Your task to perform on an android device: delete location history Image 0: 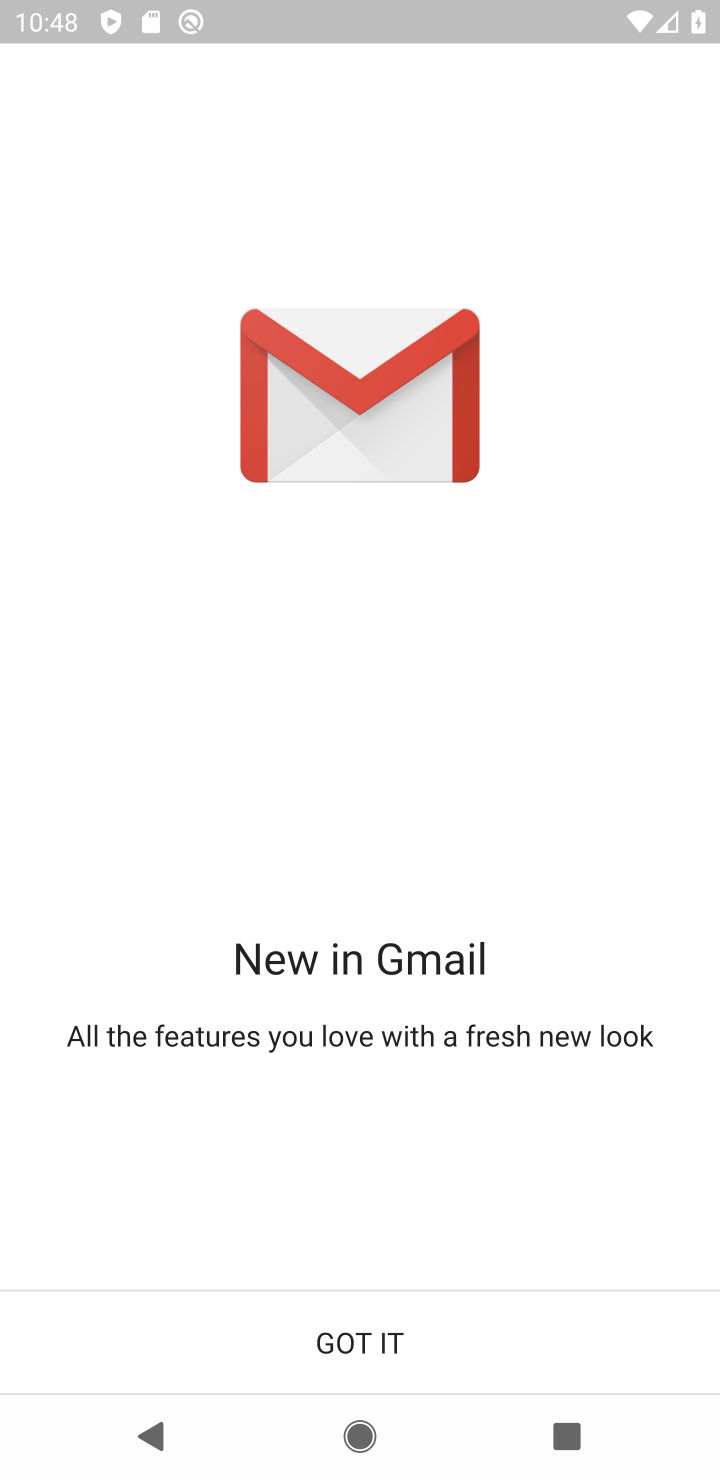
Step 0: click (345, 1355)
Your task to perform on an android device: delete location history Image 1: 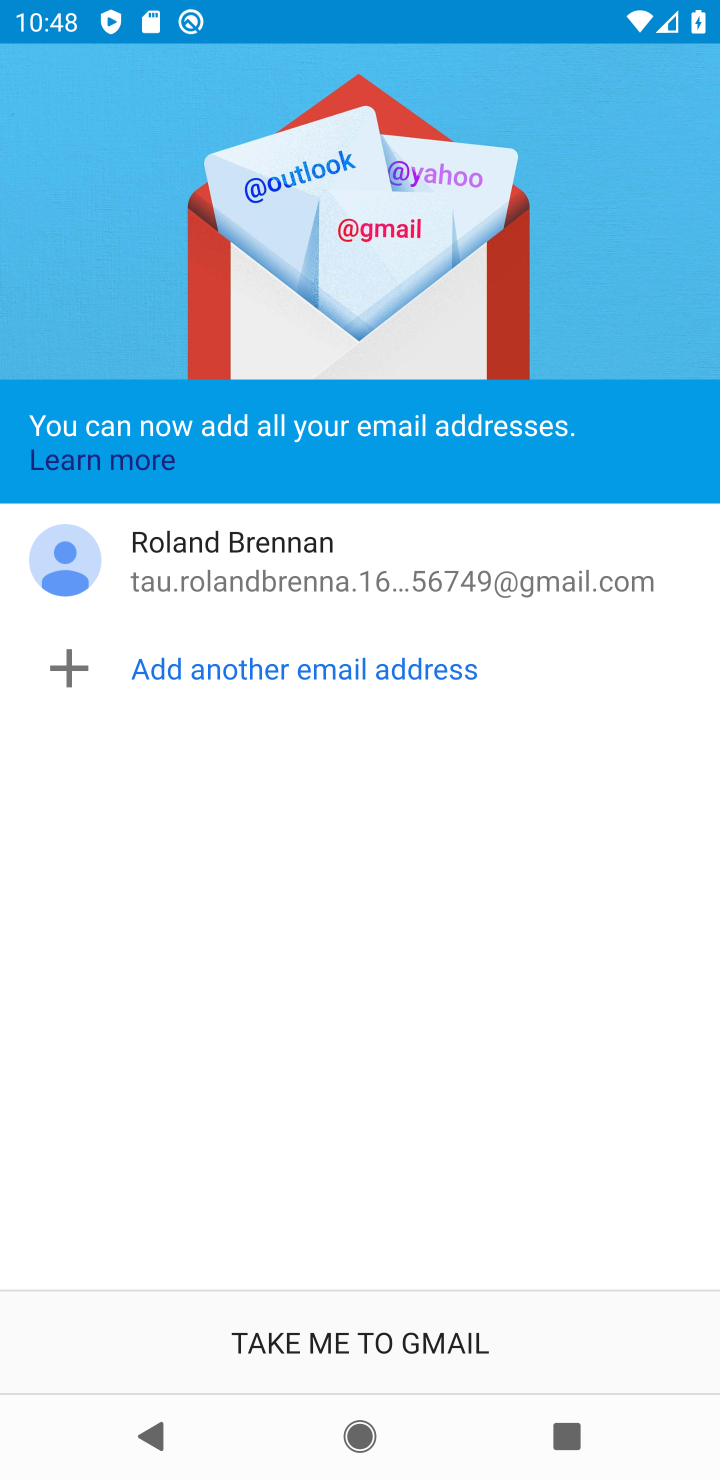
Step 1: press home button
Your task to perform on an android device: delete location history Image 2: 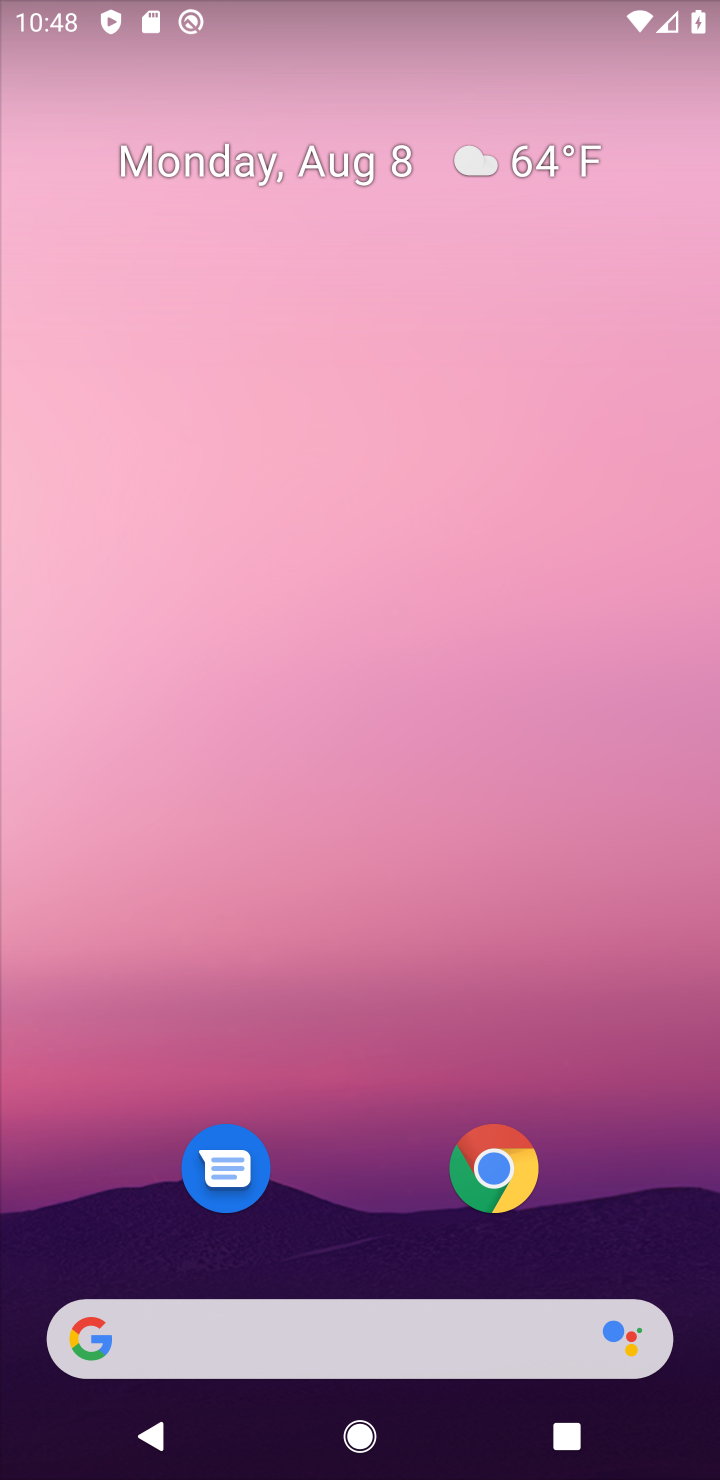
Step 2: drag from (28, 1219) to (511, 33)
Your task to perform on an android device: delete location history Image 3: 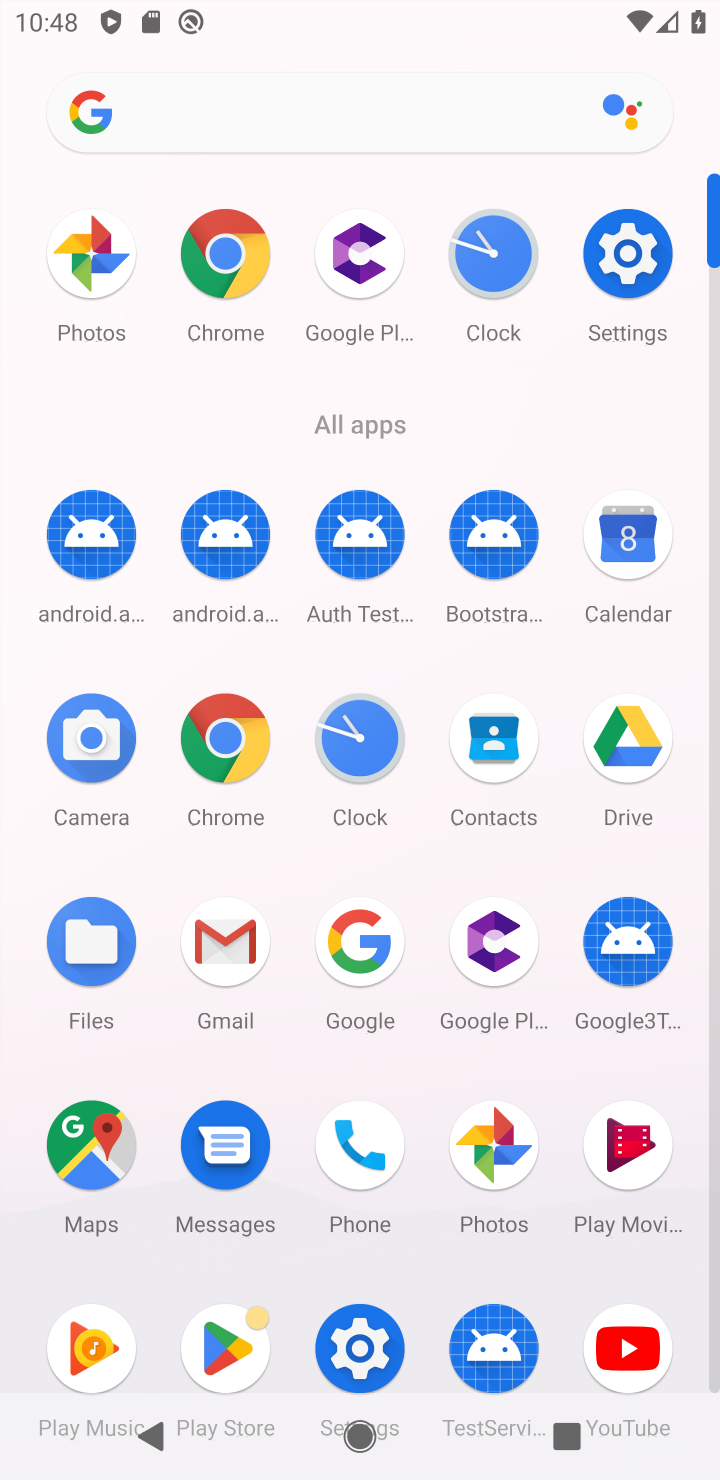
Step 3: click (666, 259)
Your task to perform on an android device: delete location history Image 4: 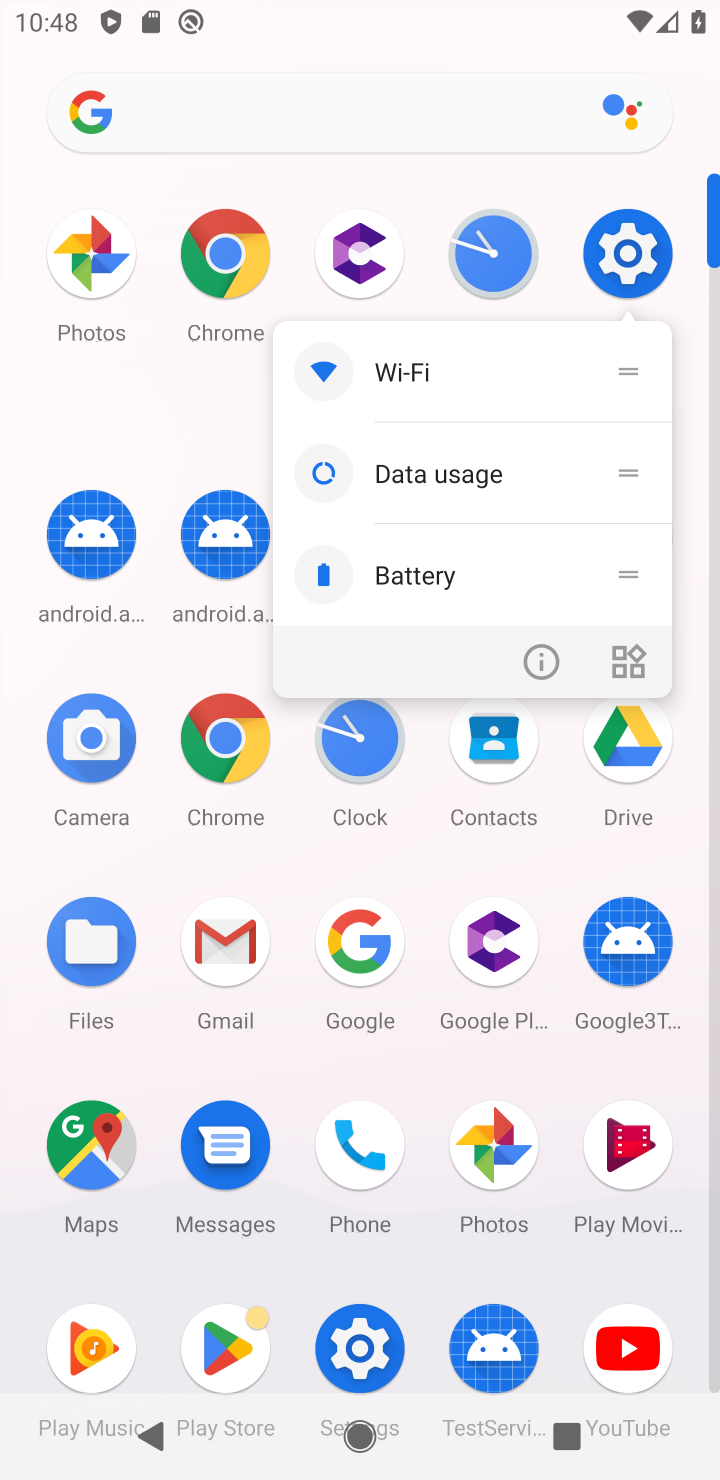
Step 4: click (648, 243)
Your task to perform on an android device: delete location history Image 5: 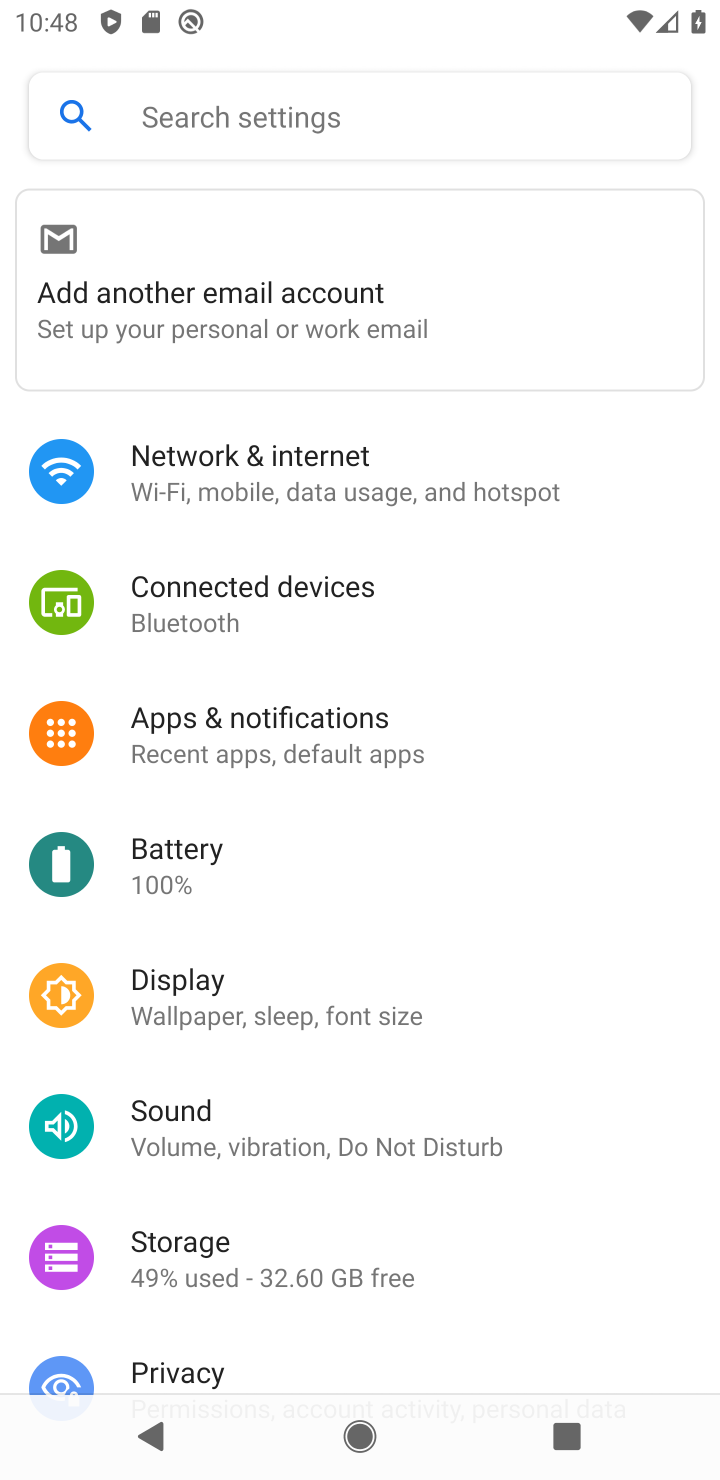
Step 5: drag from (113, 897) to (281, 530)
Your task to perform on an android device: delete location history Image 6: 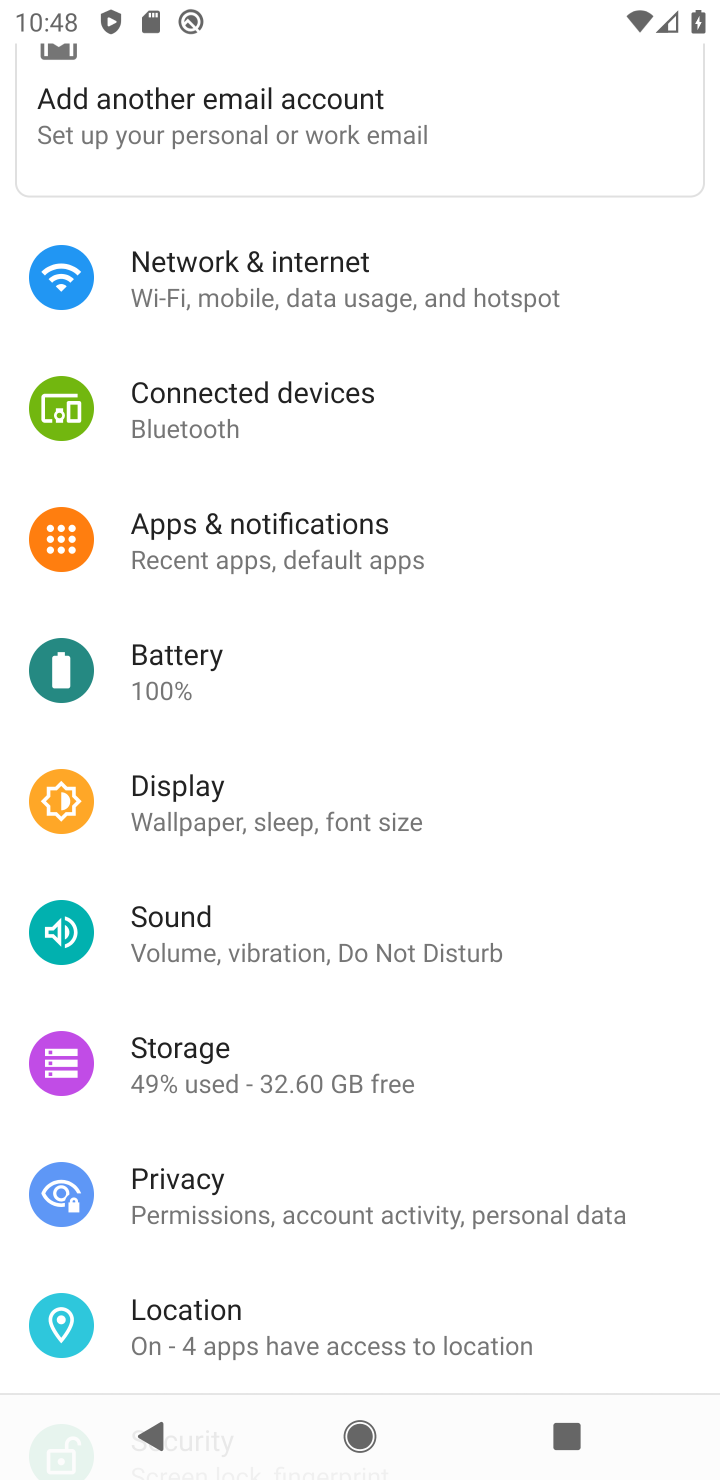
Step 6: click (219, 1311)
Your task to perform on an android device: delete location history Image 7: 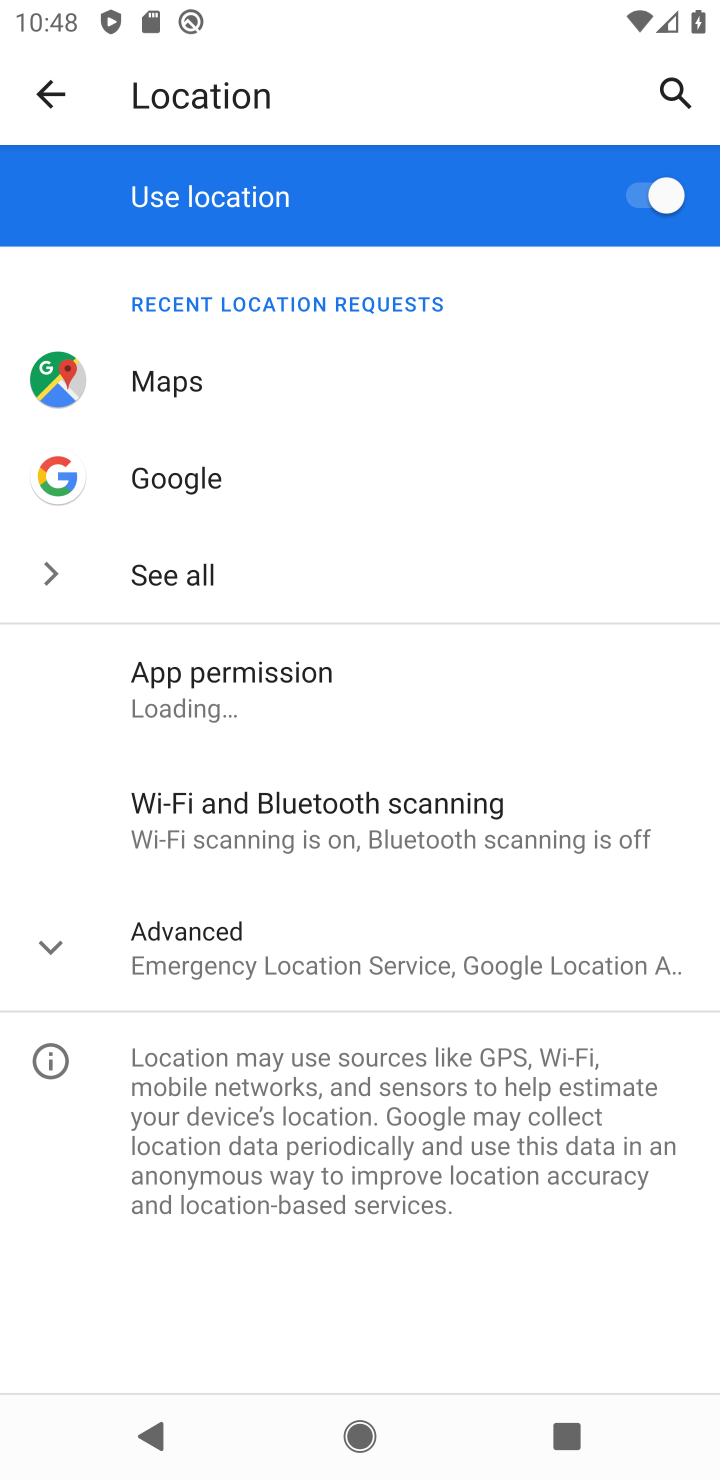
Step 7: click (309, 939)
Your task to perform on an android device: delete location history Image 8: 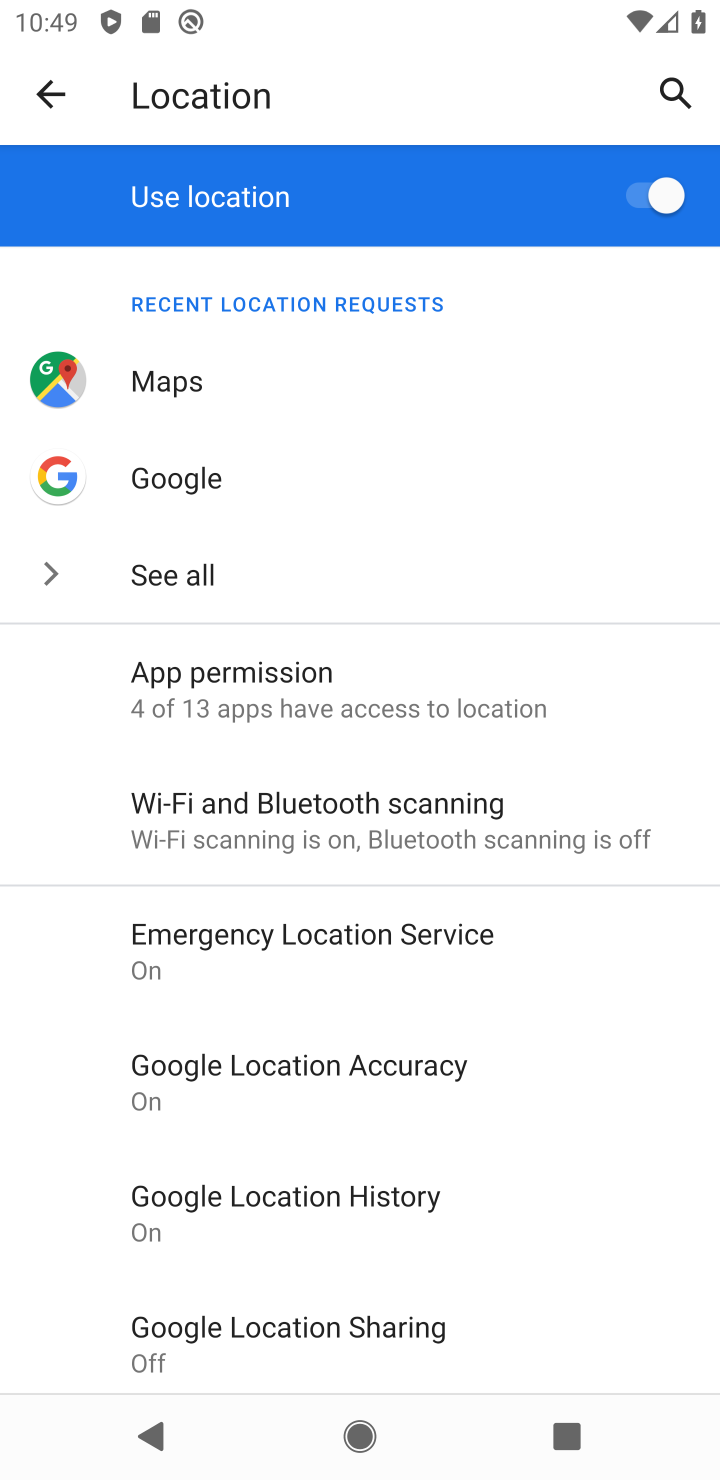
Step 8: click (199, 1219)
Your task to perform on an android device: delete location history Image 9: 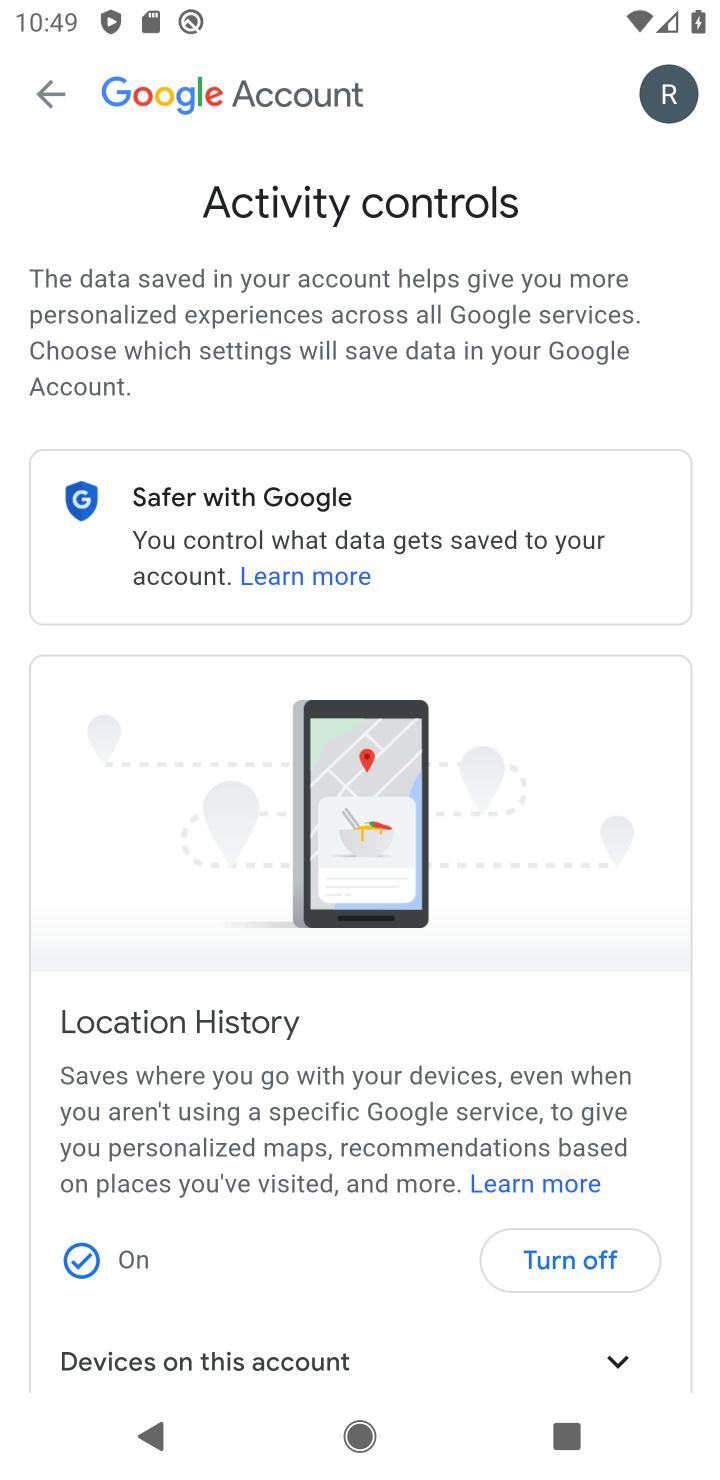
Step 9: drag from (42, 945) to (454, 130)
Your task to perform on an android device: delete location history Image 10: 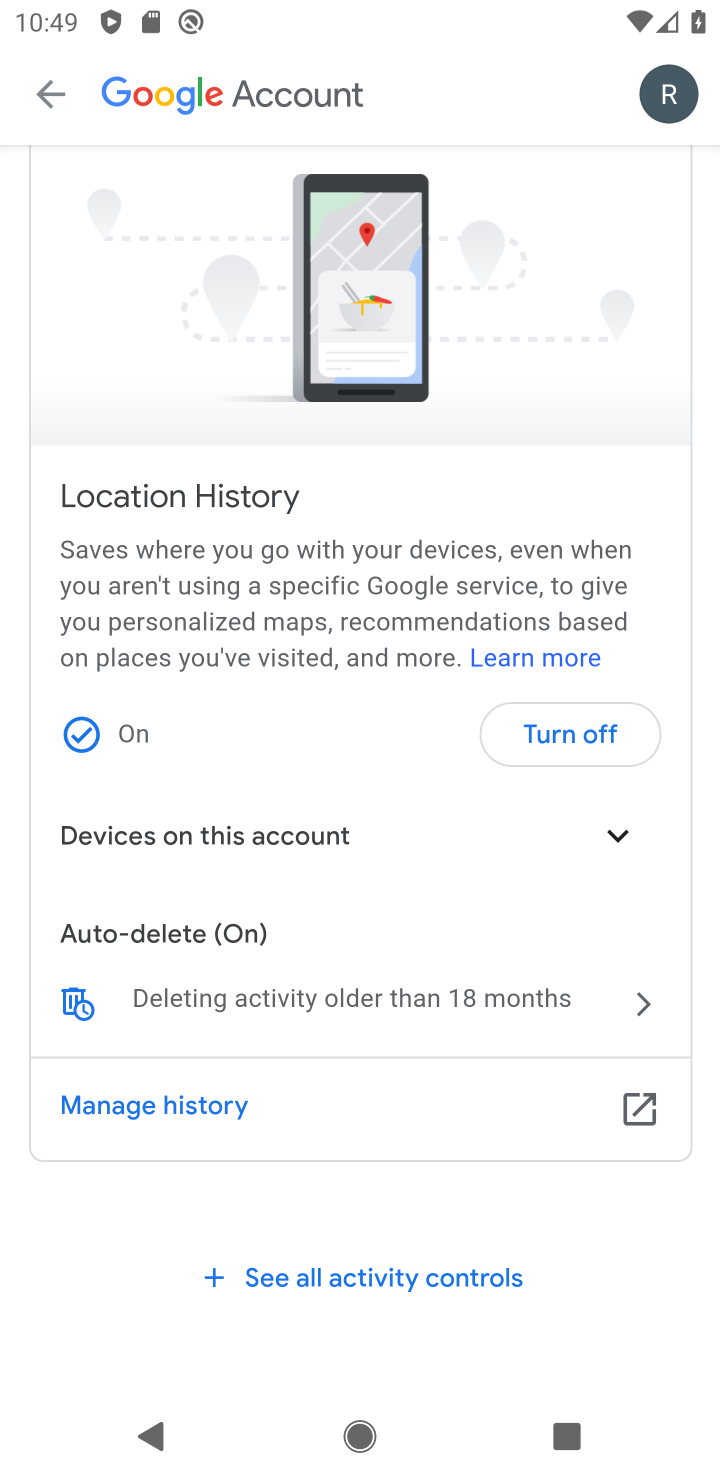
Step 10: click (259, 995)
Your task to perform on an android device: delete location history Image 11: 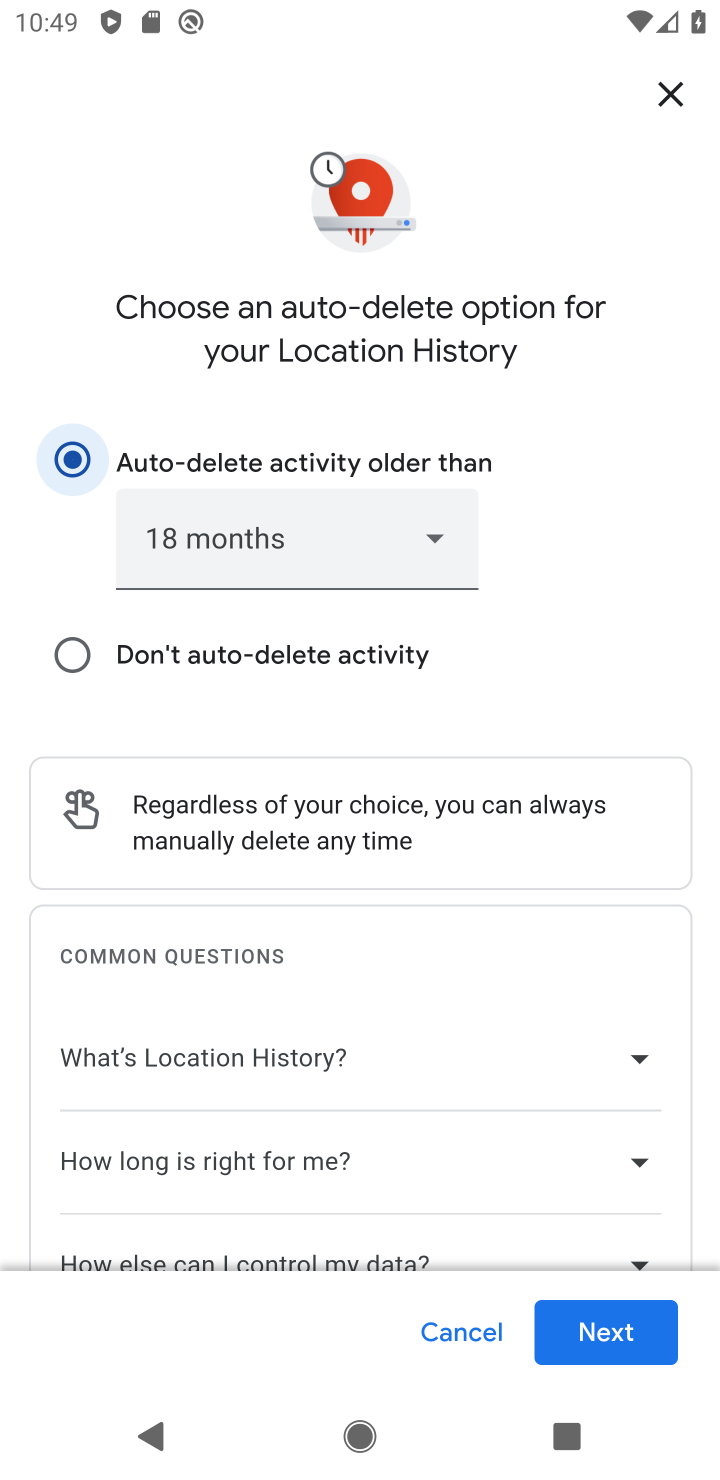
Step 11: click (647, 1317)
Your task to perform on an android device: delete location history Image 12: 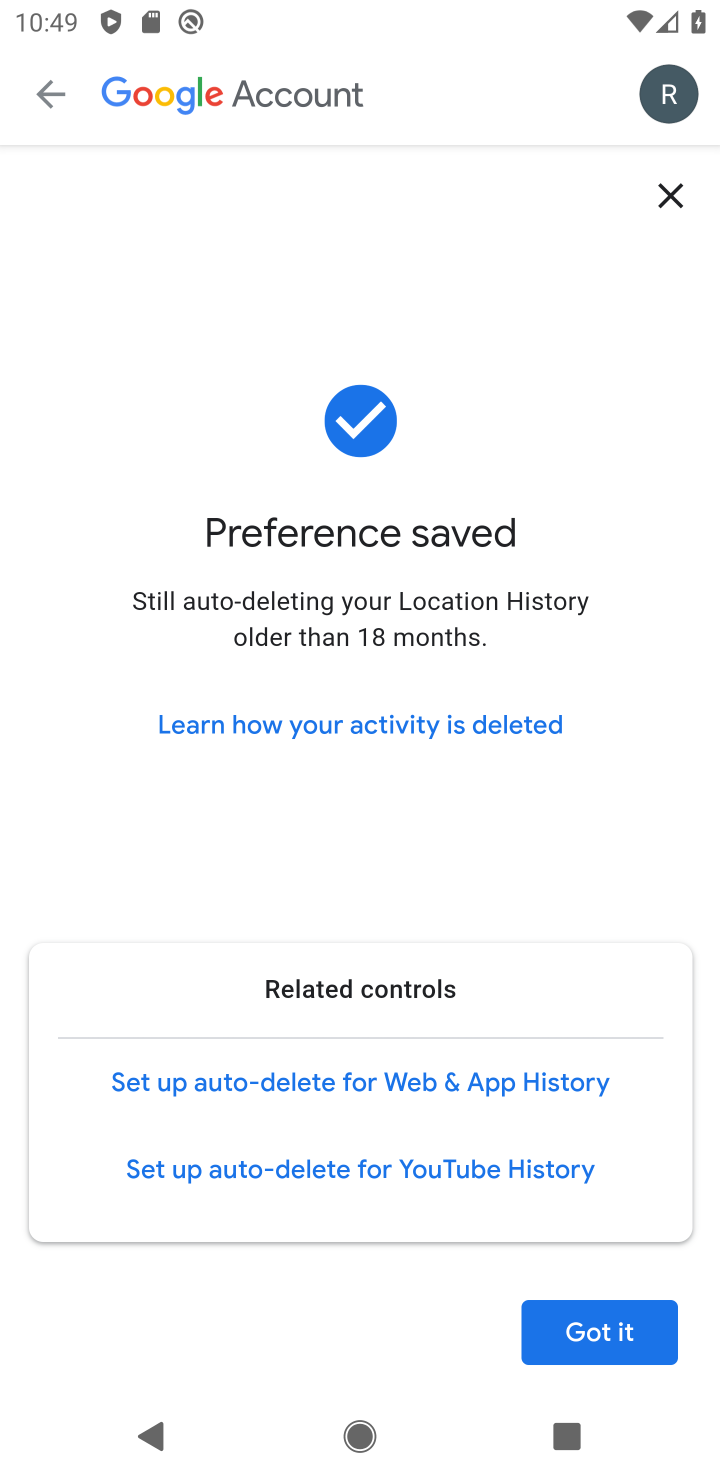
Step 12: click (589, 1358)
Your task to perform on an android device: delete location history Image 13: 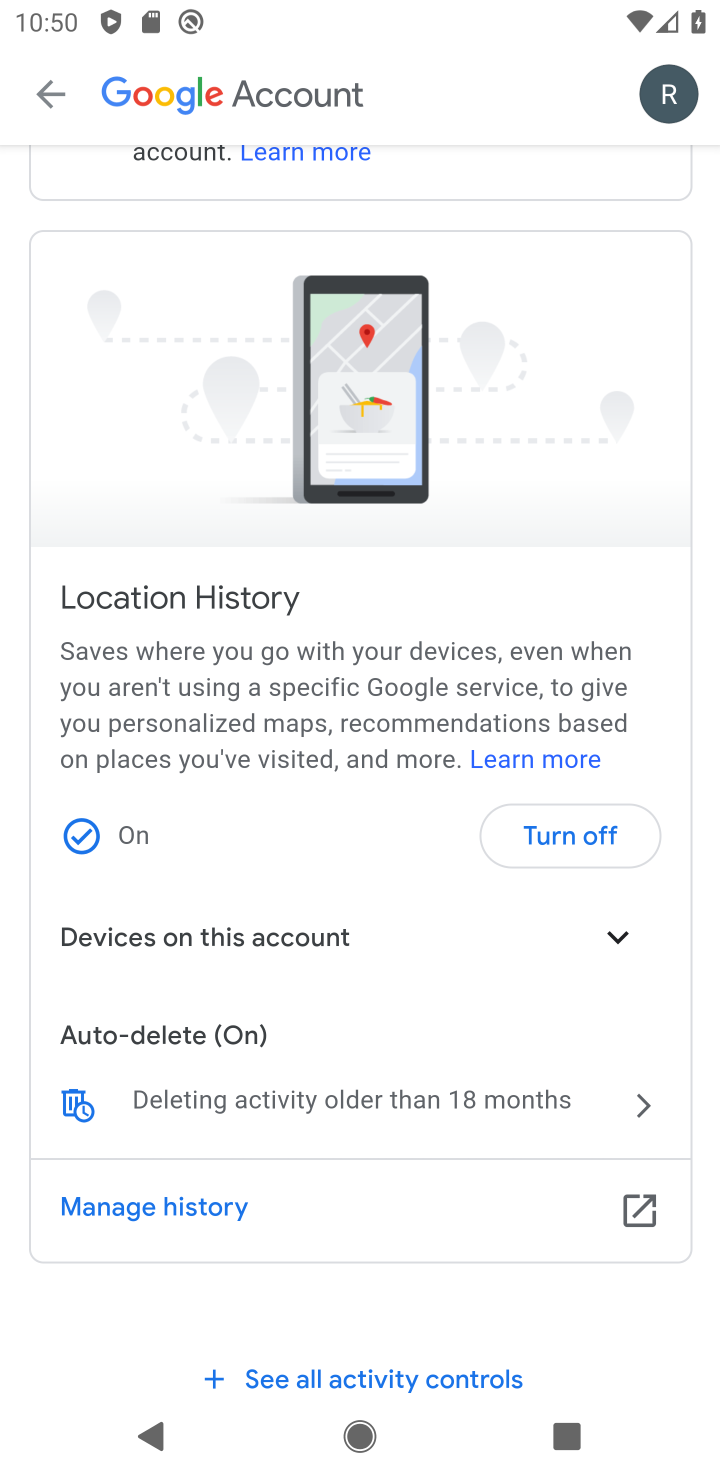
Step 13: task complete